Your task to perform on an android device: set an alarm Image 0: 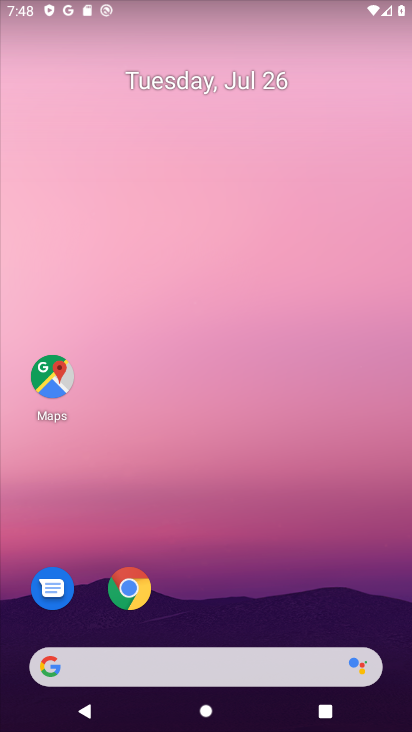
Step 0: drag from (208, 643) to (302, 82)
Your task to perform on an android device: set an alarm Image 1: 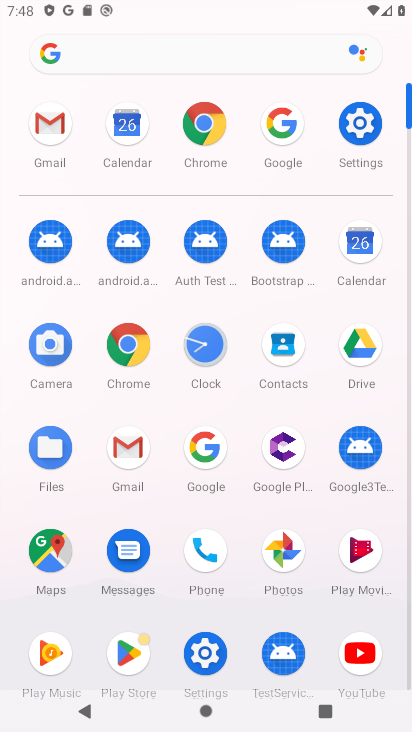
Step 1: click (203, 359)
Your task to perform on an android device: set an alarm Image 2: 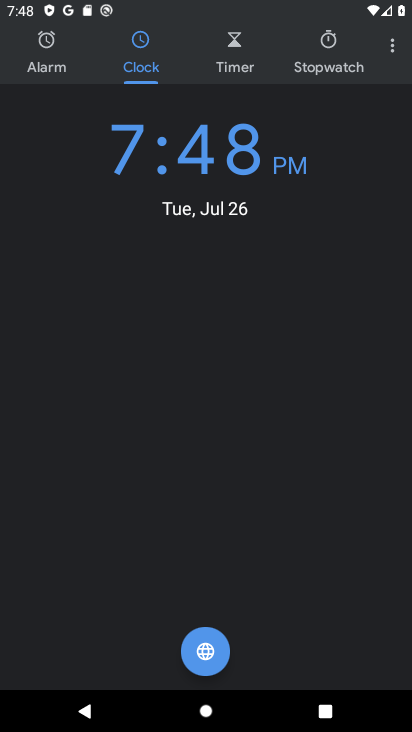
Step 2: click (63, 63)
Your task to perform on an android device: set an alarm Image 3: 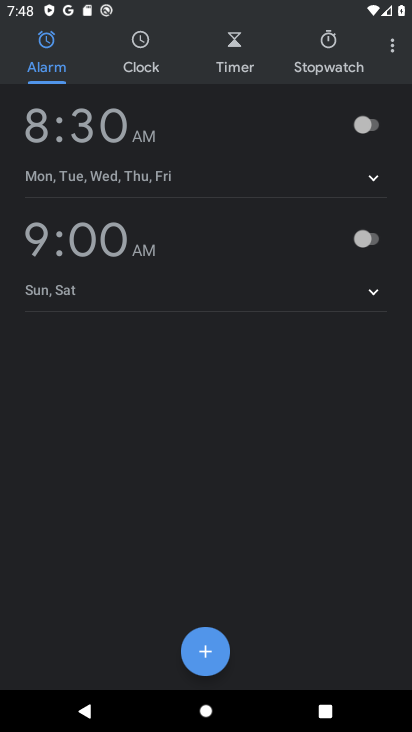
Step 3: click (203, 643)
Your task to perform on an android device: set an alarm Image 4: 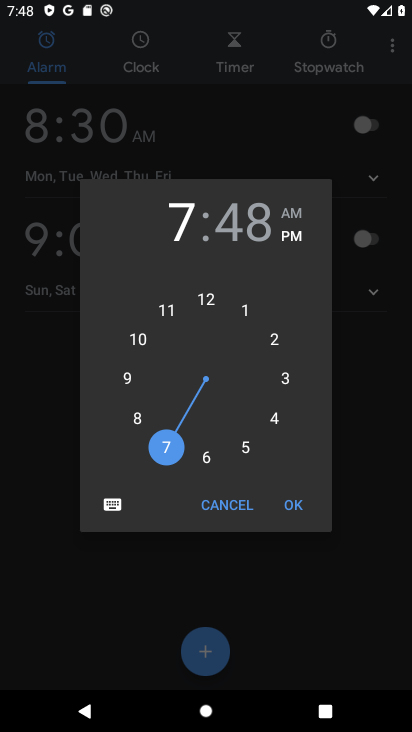
Step 4: click (292, 528)
Your task to perform on an android device: set an alarm Image 5: 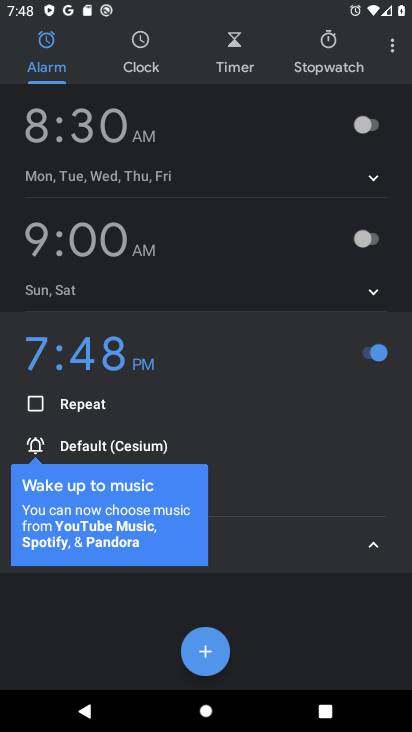
Step 5: task complete